Your task to perform on an android device: Is it going to rain today? Image 0: 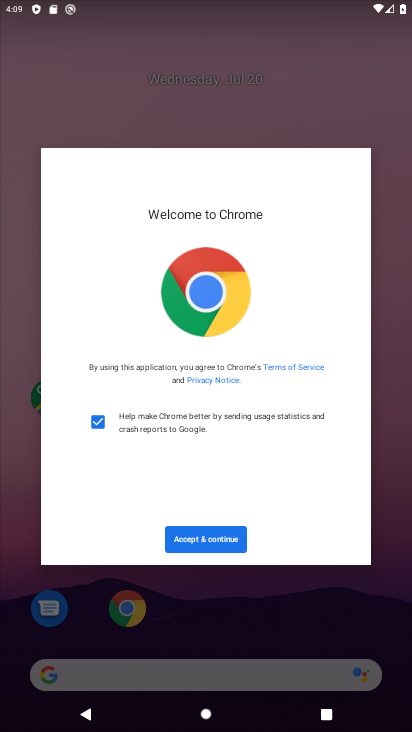
Step 0: press home button
Your task to perform on an android device: Is it going to rain today? Image 1: 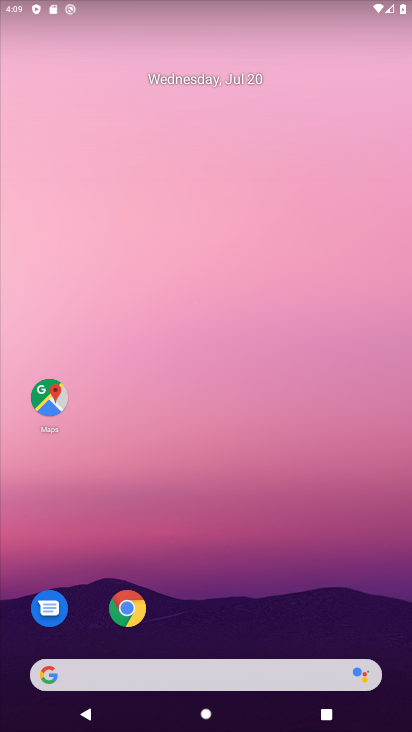
Step 1: click (186, 610)
Your task to perform on an android device: Is it going to rain today? Image 2: 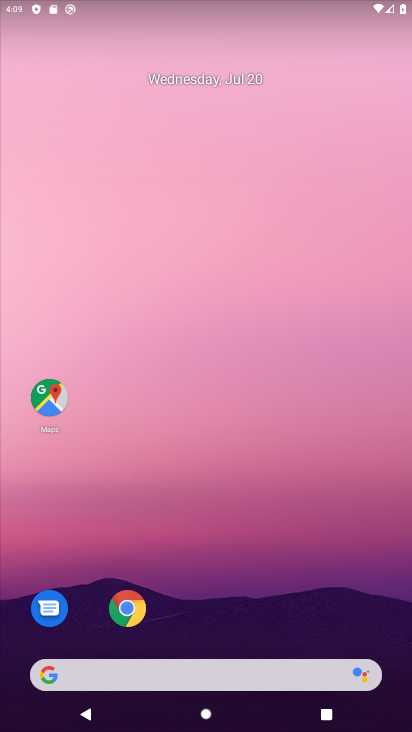
Step 2: drag from (186, 610) to (115, 166)
Your task to perform on an android device: Is it going to rain today? Image 3: 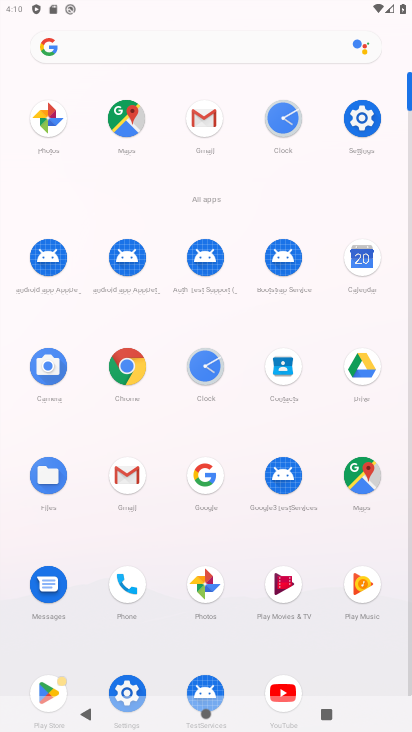
Step 3: click (205, 486)
Your task to perform on an android device: Is it going to rain today? Image 4: 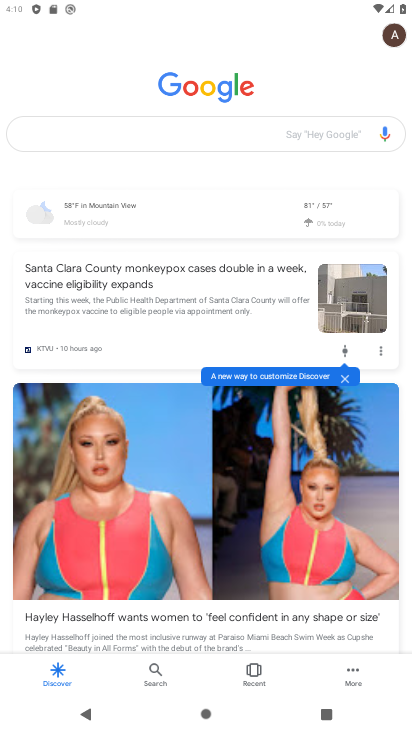
Step 4: press back button
Your task to perform on an android device: Is it going to rain today? Image 5: 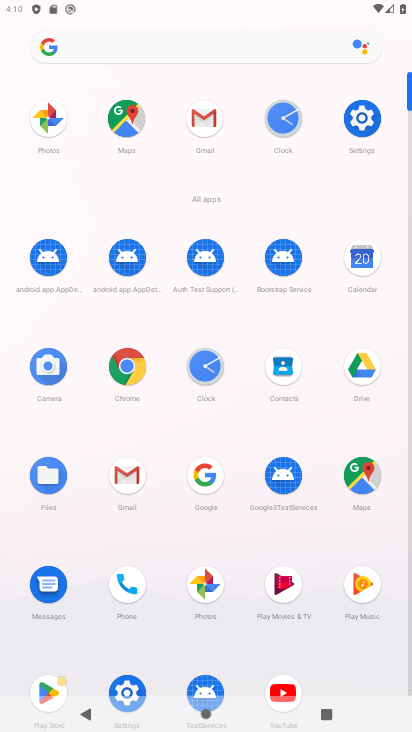
Step 5: click (186, 469)
Your task to perform on an android device: Is it going to rain today? Image 6: 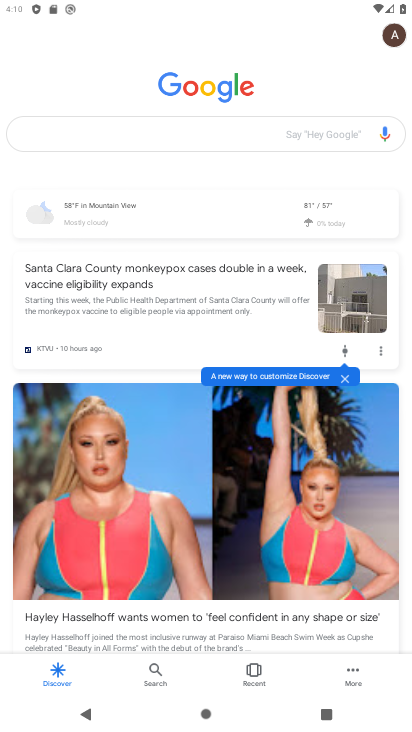
Step 6: click (200, 143)
Your task to perform on an android device: Is it going to rain today? Image 7: 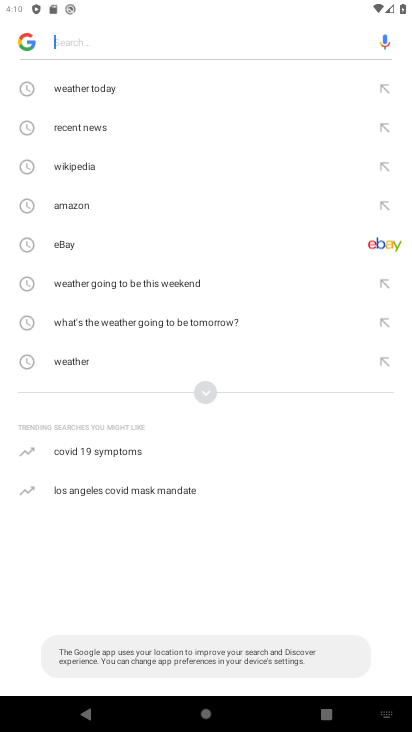
Step 7: click (90, 81)
Your task to perform on an android device: Is it going to rain today? Image 8: 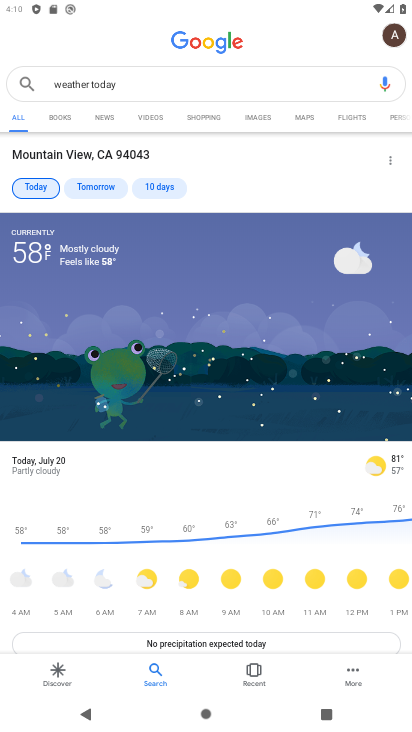
Step 8: task complete